Your task to perform on an android device: Open settings on Google Maps Image 0: 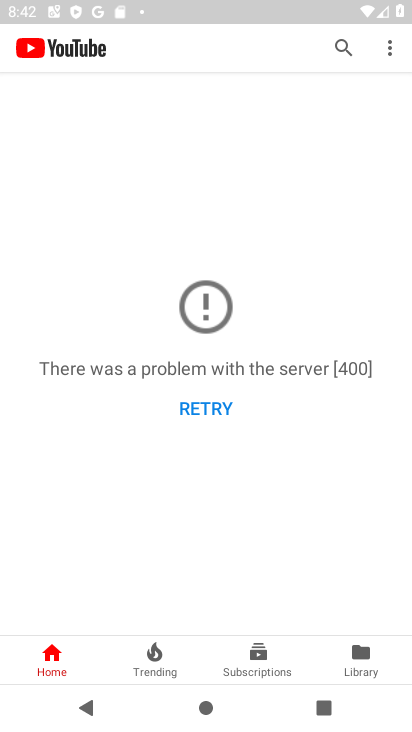
Step 0: press back button
Your task to perform on an android device: Open settings on Google Maps Image 1: 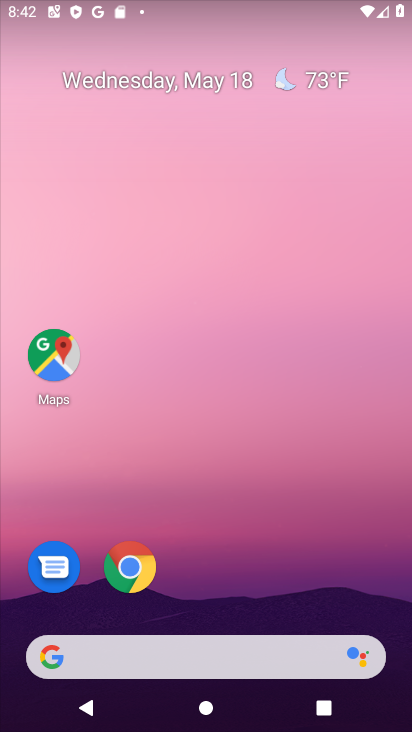
Step 1: drag from (273, 574) to (224, 17)
Your task to perform on an android device: Open settings on Google Maps Image 2: 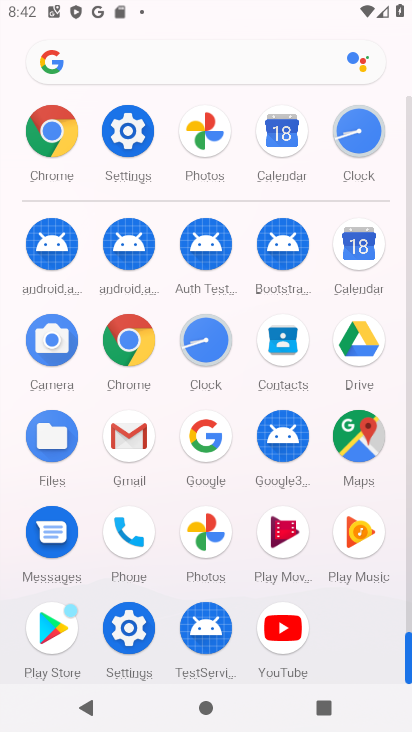
Step 2: click (358, 432)
Your task to perform on an android device: Open settings on Google Maps Image 3: 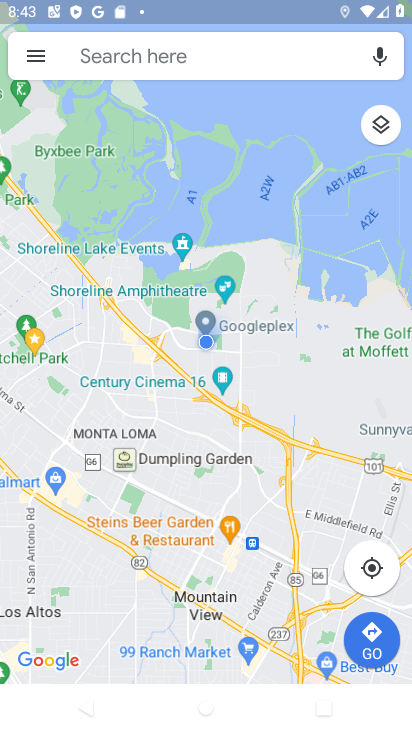
Step 3: click (39, 53)
Your task to perform on an android device: Open settings on Google Maps Image 4: 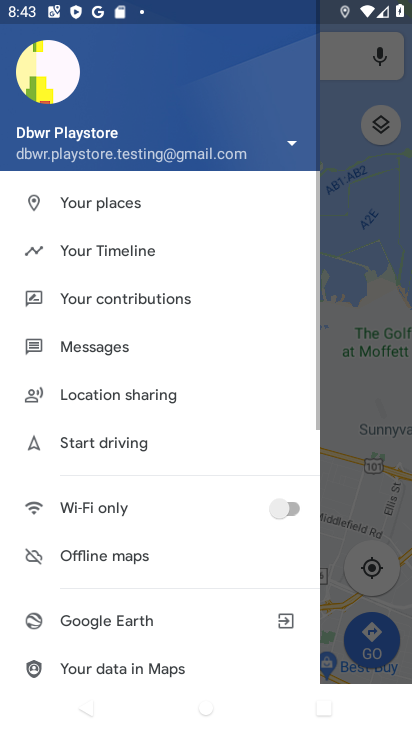
Step 4: drag from (137, 642) to (207, 190)
Your task to perform on an android device: Open settings on Google Maps Image 5: 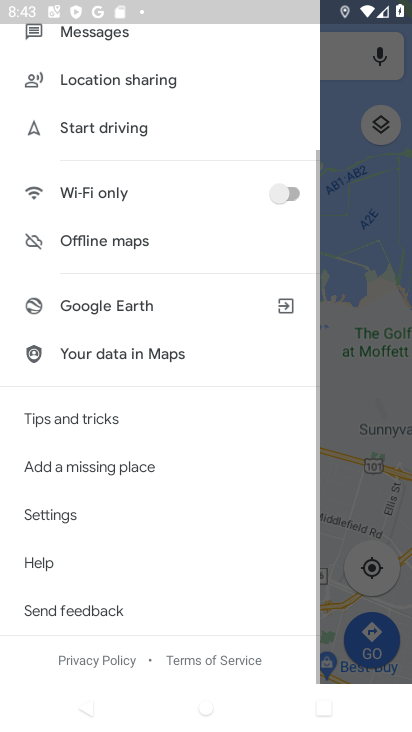
Step 5: click (84, 511)
Your task to perform on an android device: Open settings on Google Maps Image 6: 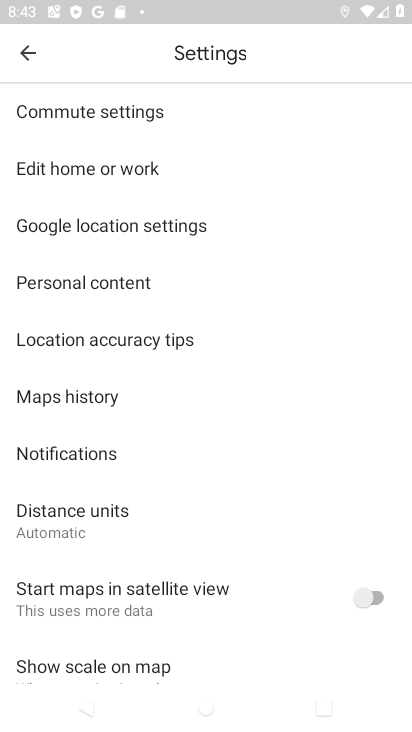
Step 6: task complete